Your task to perform on an android device: open a bookmark in the chrome app Image 0: 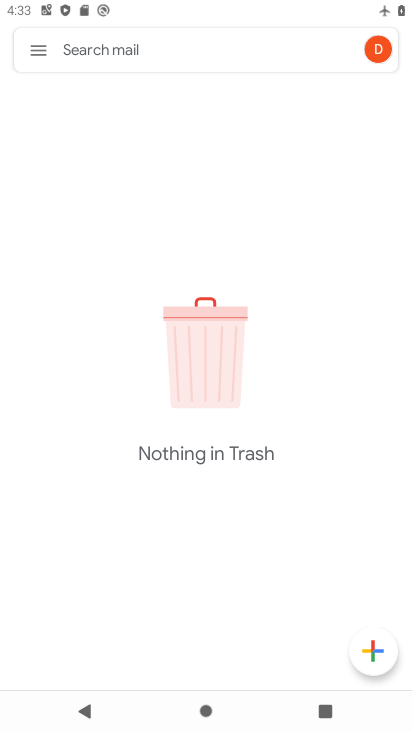
Step 0: press home button
Your task to perform on an android device: open a bookmark in the chrome app Image 1: 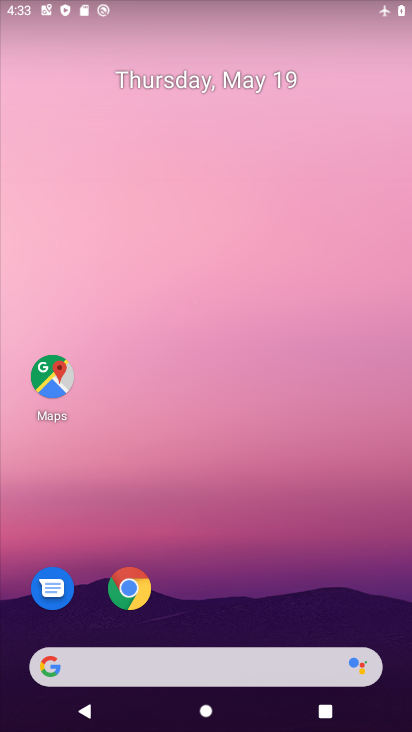
Step 1: click (144, 593)
Your task to perform on an android device: open a bookmark in the chrome app Image 2: 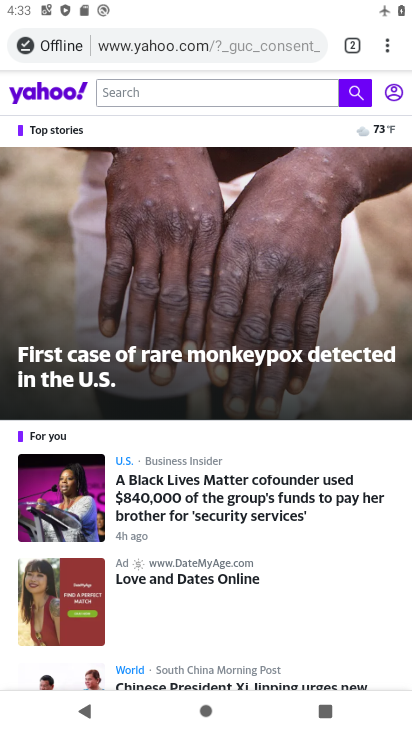
Step 2: click (383, 42)
Your task to perform on an android device: open a bookmark in the chrome app Image 3: 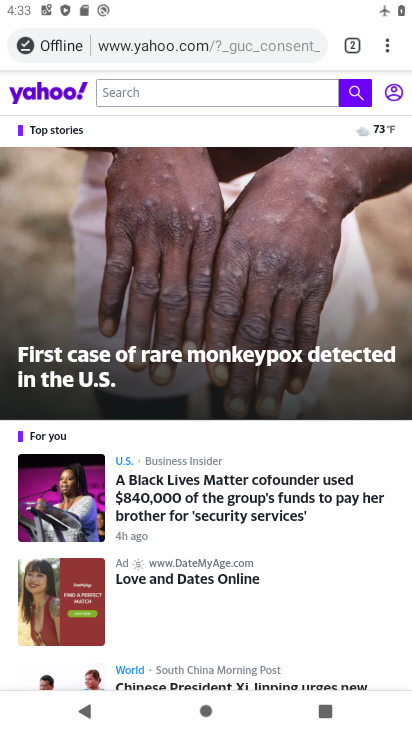
Step 3: click (387, 51)
Your task to perform on an android device: open a bookmark in the chrome app Image 4: 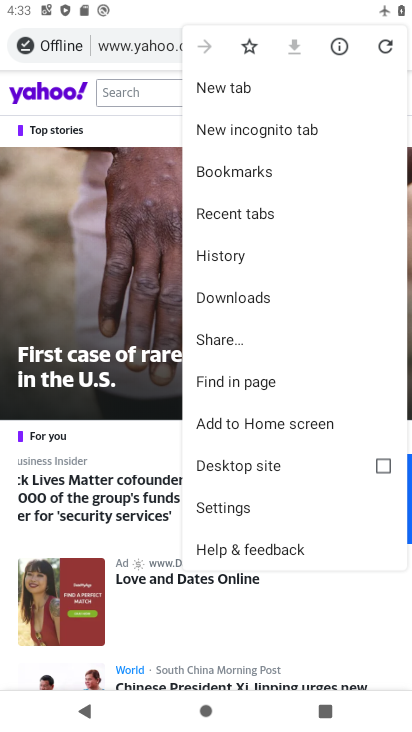
Step 4: click (249, 175)
Your task to perform on an android device: open a bookmark in the chrome app Image 5: 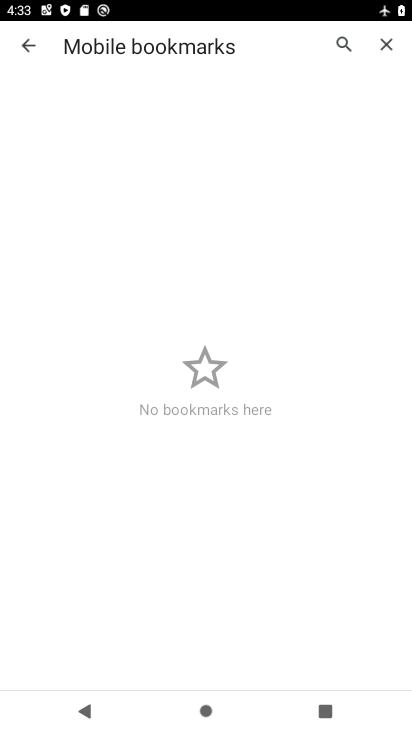
Step 5: task complete